Your task to perform on an android device: What's on my calendar tomorrow? Image 0: 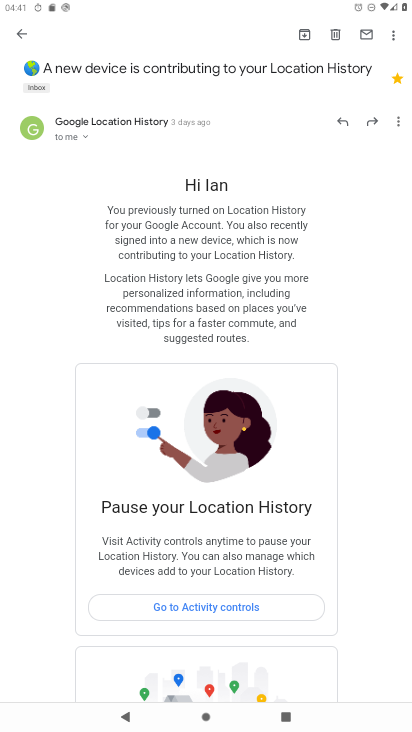
Step 0: press home button
Your task to perform on an android device: What's on my calendar tomorrow? Image 1: 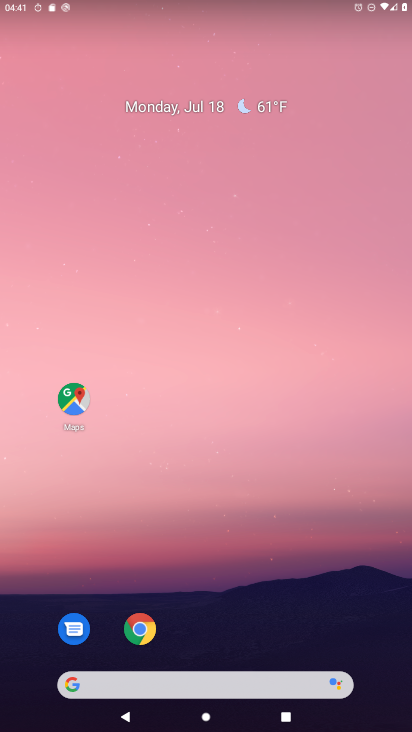
Step 1: drag from (173, 680) to (249, 88)
Your task to perform on an android device: What's on my calendar tomorrow? Image 2: 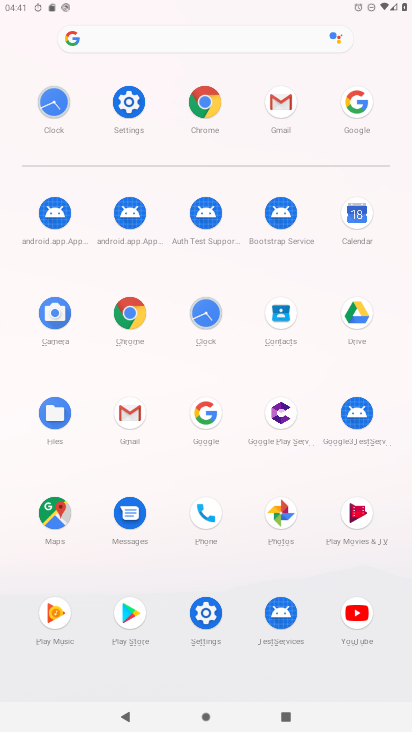
Step 2: click (358, 217)
Your task to perform on an android device: What's on my calendar tomorrow? Image 3: 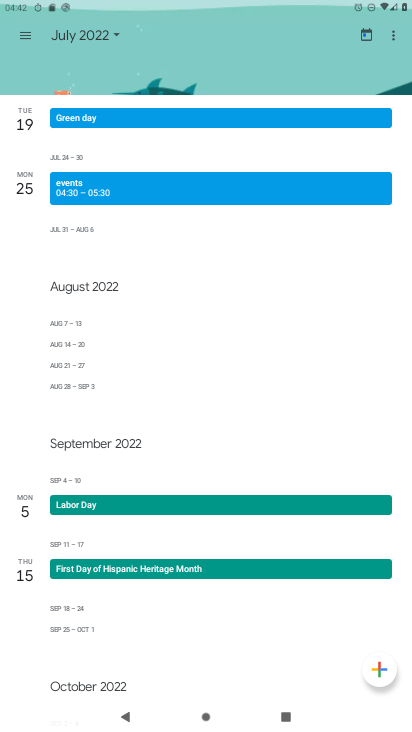
Step 3: click (367, 35)
Your task to perform on an android device: What's on my calendar tomorrow? Image 4: 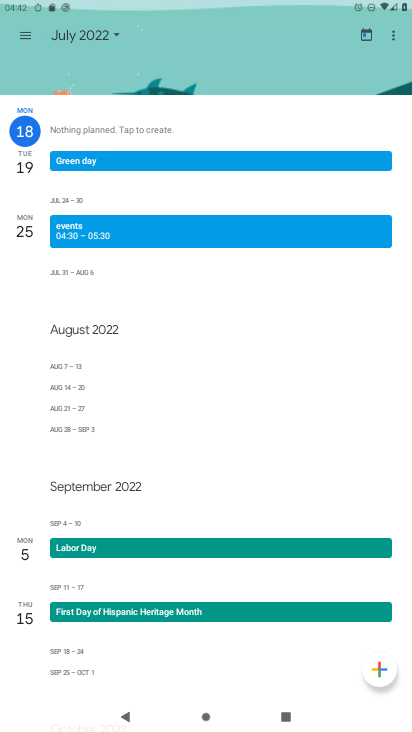
Step 4: click (118, 33)
Your task to perform on an android device: What's on my calendar tomorrow? Image 5: 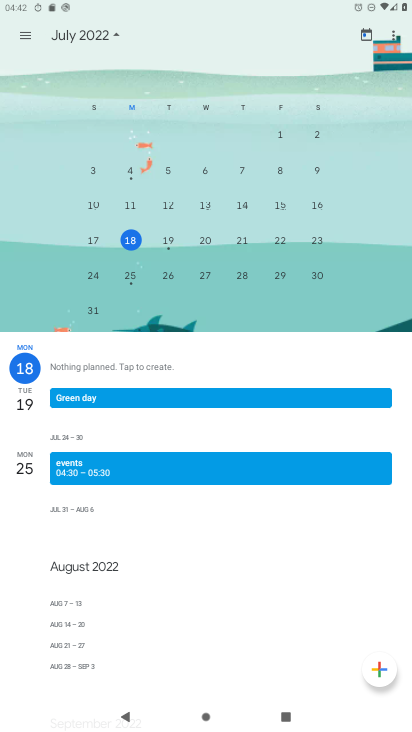
Step 5: click (171, 242)
Your task to perform on an android device: What's on my calendar tomorrow? Image 6: 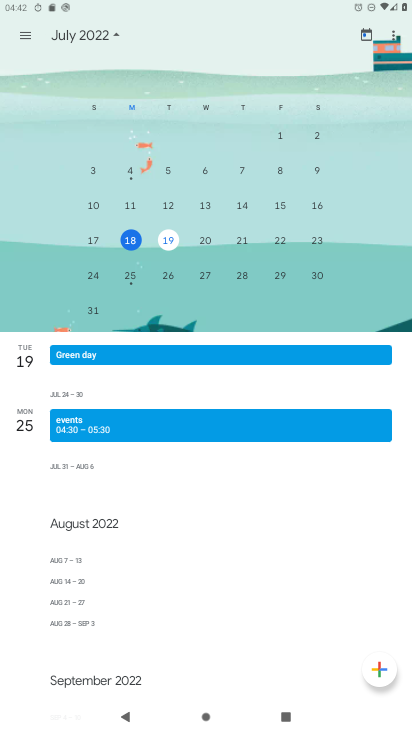
Step 6: click (23, 36)
Your task to perform on an android device: What's on my calendar tomorrow? Image 7: 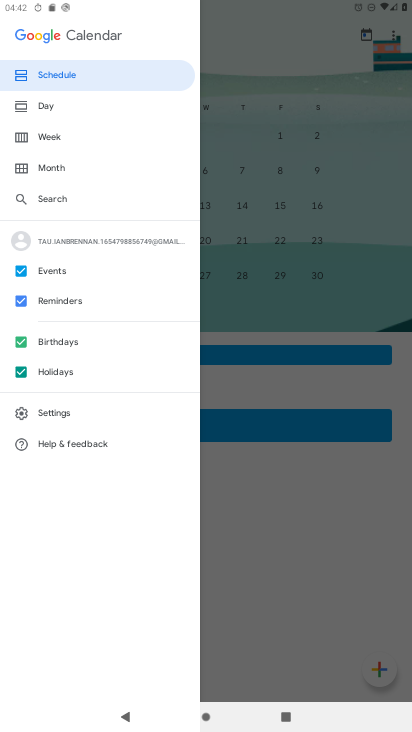
Step 7: click (69, 80)
Your task to perform on an android device: What's on my calendar tomorrow? Image 8: 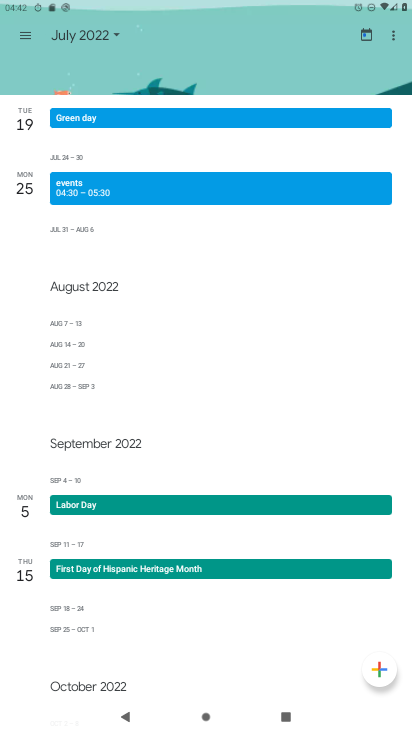
Step 8: task complete